Your task to perform on an android device: Open Yahoo.com Image 0: 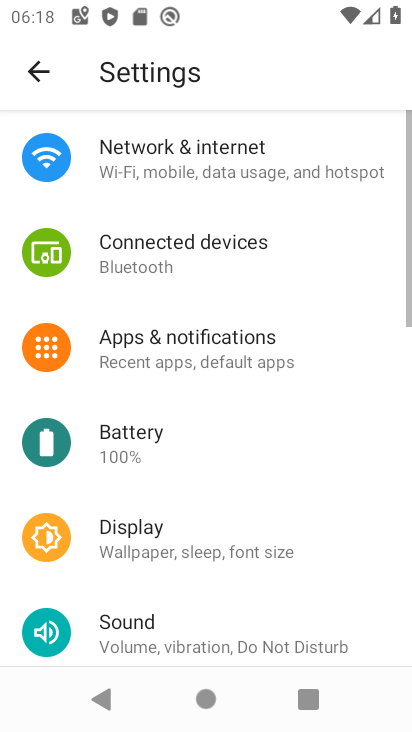
Step 0: press home button
Your task to perform on an android device: Open Yahoo.com Image 1: 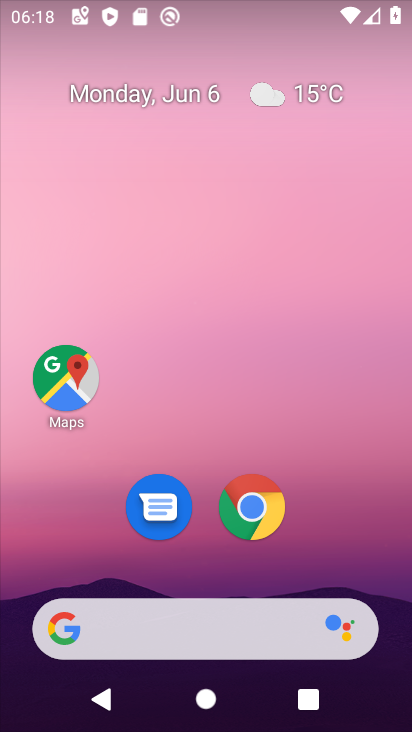
Step 1: click (244, 502)
Your task to perform on an android device: Open Yahoo.com Image 2: 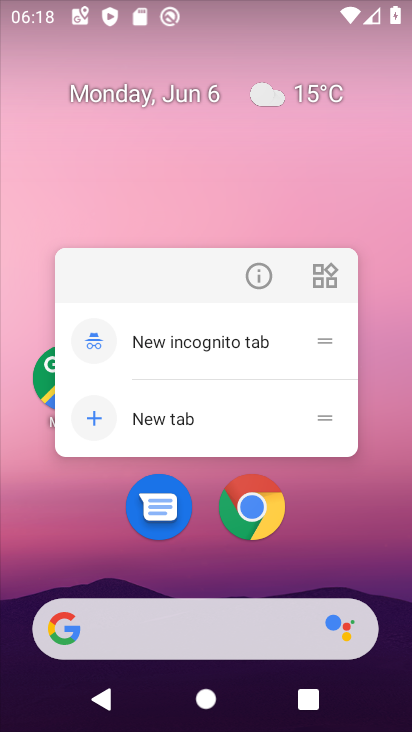
Step 2: click (244, 506)
Your task to perform on an android device: Open Yahoo.com Image 3: 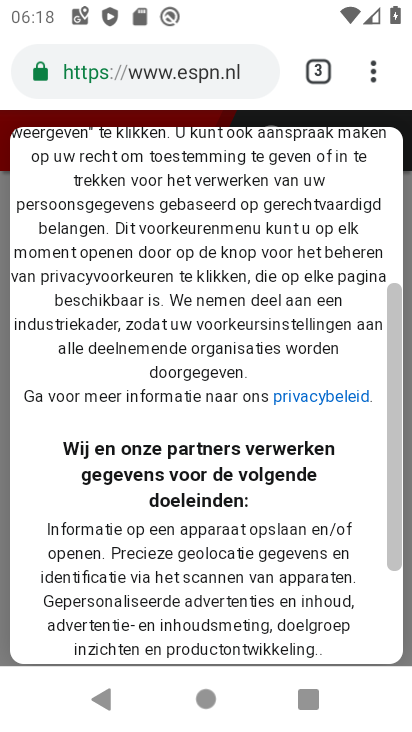
Step 3: click (310, 77)
Your task to perform on an android device: Open Yahoo.com Image 4: 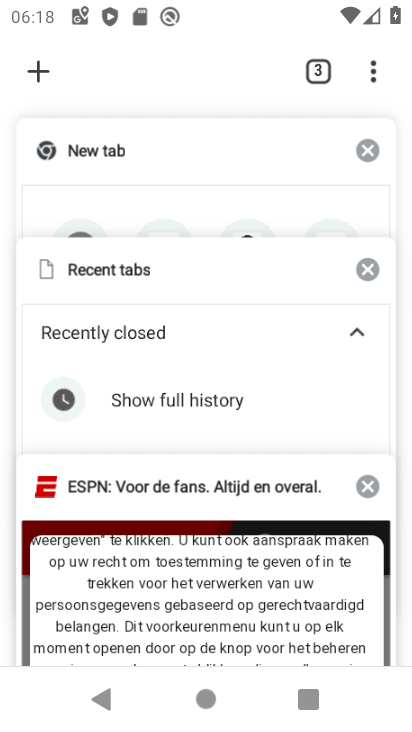
Step 4: click (368, 150)
Your task to perform on an android device: Open Yahoo.com Image 5: 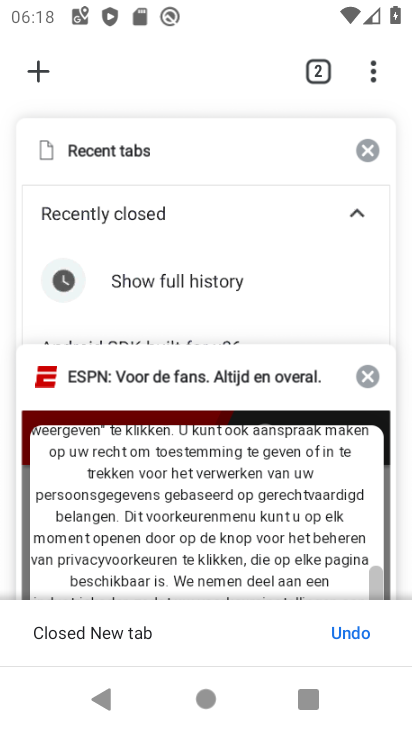
Step 5: click (368, 150)
Your task to perform on an android device: Open Yahoo.com Image 6: 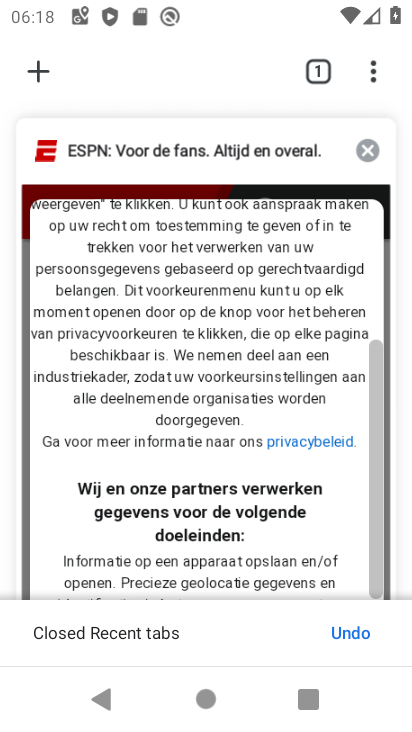
Step 6: click (366, 152)
Your task to perform on an android device: Open Yahoo.com Image 7: 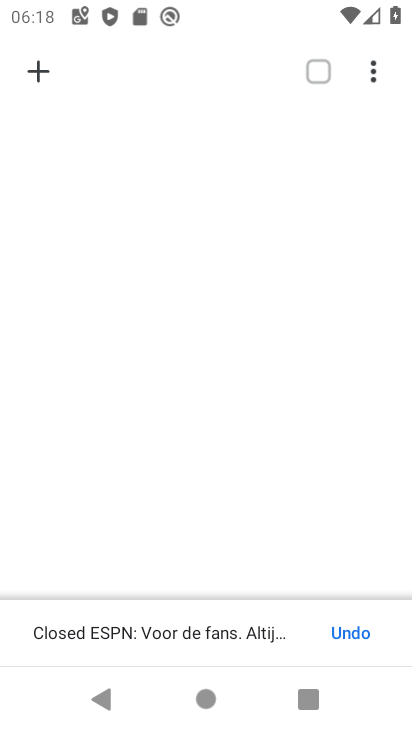
Step 7: click (41, 75)
Your task to perform on an android device: Open Yahoo.com Image 8: 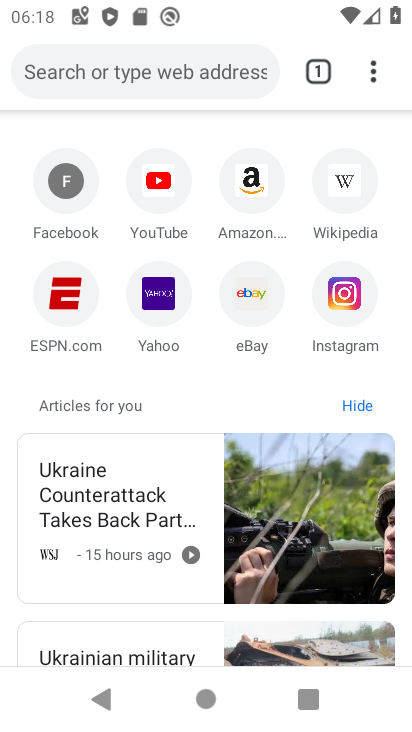
Step 8: click (151, 303)
Your task to perform on an android device: Open Yahoo.com Image 9: 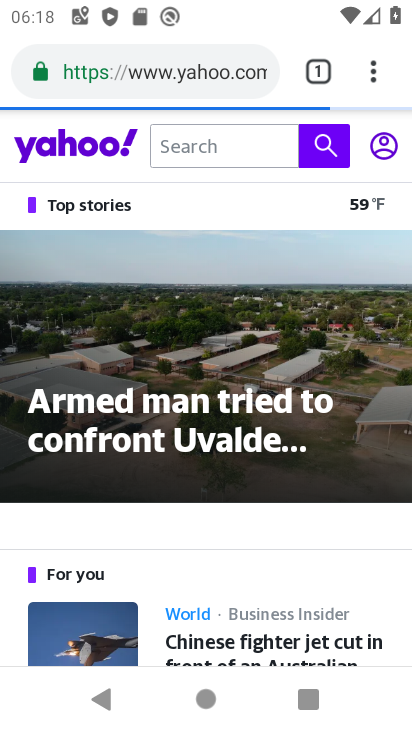
Step 9: task complete